Your task to perform on an android device: turn on showing notifications on the lock screen Image 0: 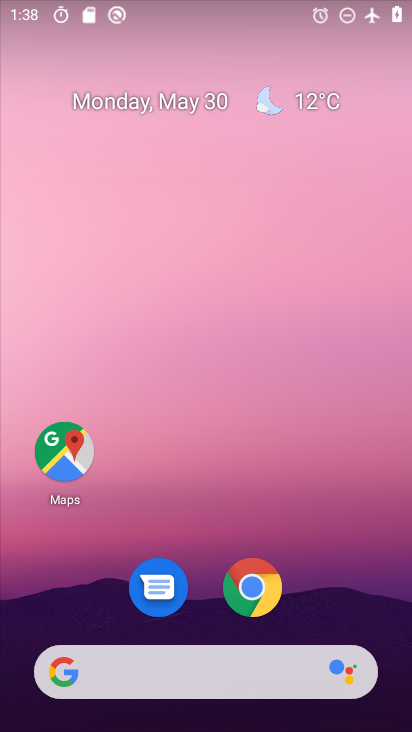
Step 0: drag from (341, 553) to (287, 150)
Your task to perform on an android device: turn on showing notifications on the lock screen Image 1: 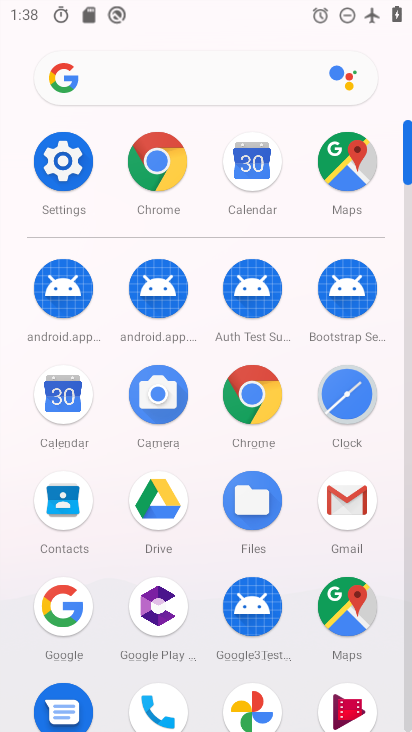
Step 1: click (78, 158)
Your task to perform on an android device: turn on showing notifications on the lock screen Image 2: 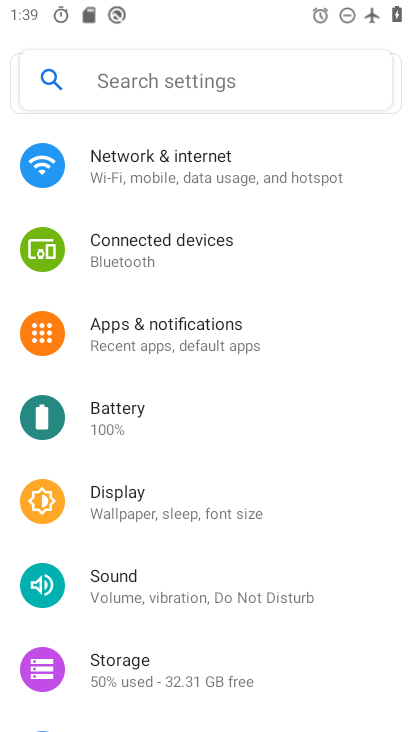
Step 2: click (197, 338)
Your task to perform on an android device: turn on showing notifications on the lock screen Image 3: 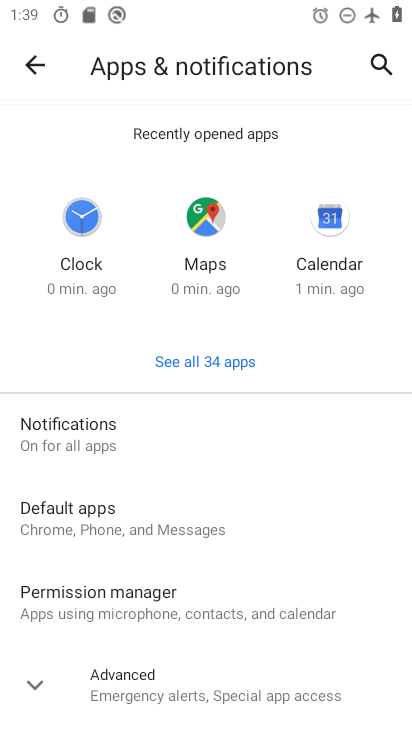
Step 3: click (107, 434)
Your task to perform on an android device: turn on showing notifications on the lock screen Image 4: 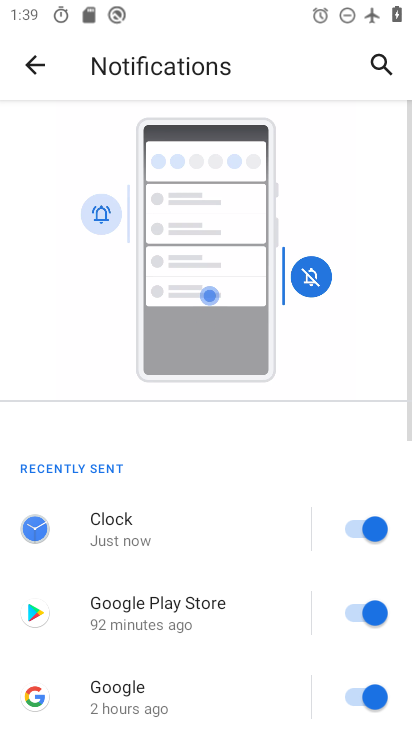
Step 4: drag from (251, 606) to (231, 30)
Your task to perform on an android device: turn on showing notifications on the lock screen Image 5: 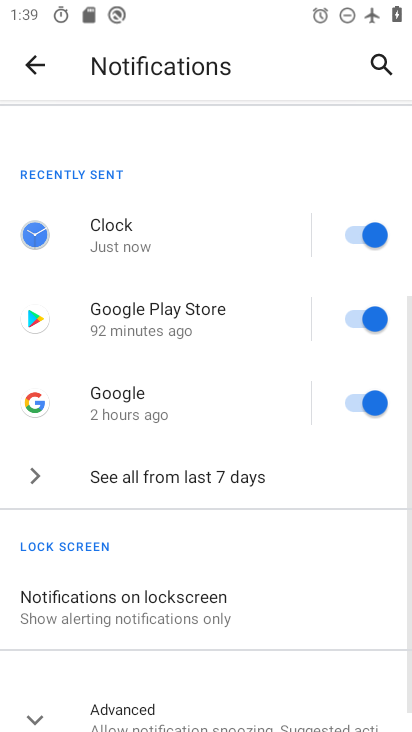
Step 5: click (185, 593)
Your task to perform on an android device: turn on showing notifications on the lock screen Image 6: 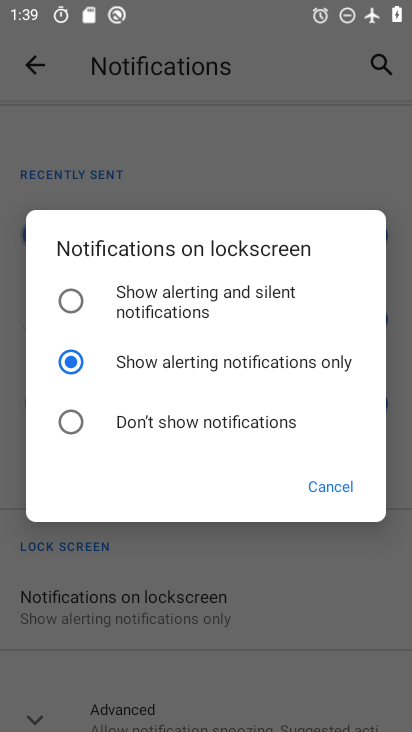
Step 6: task complete